Your task to perform on an android device: Go to internet settings Image 0: 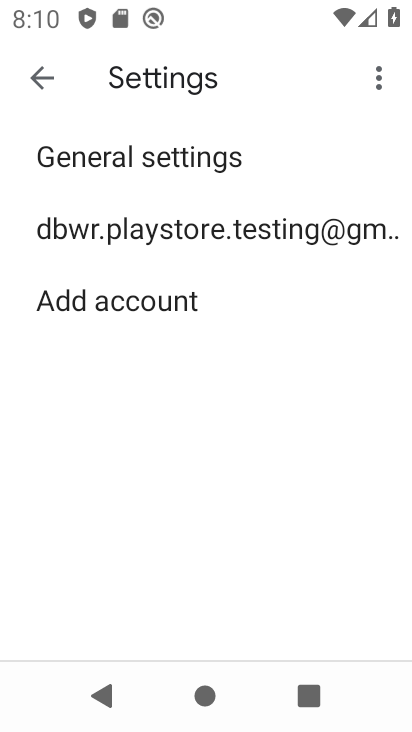
Step 0: press home button
Your task to perform on an android device: Go to internet settings Image 1: 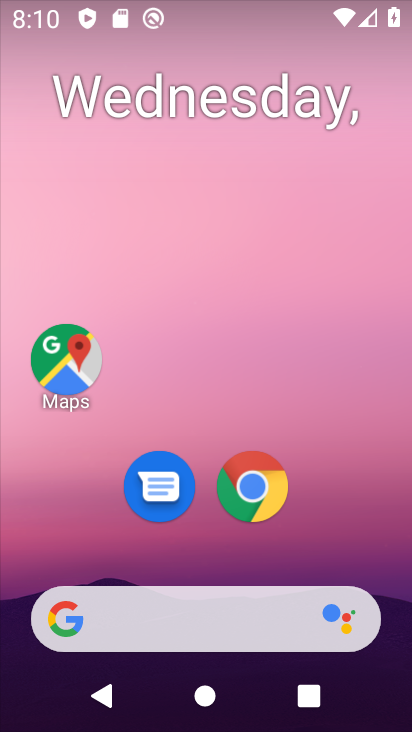
Step 1: drag from (397, 622) to (325, 143)
Your task to perform on an android device: Go to internet settings Image 2: 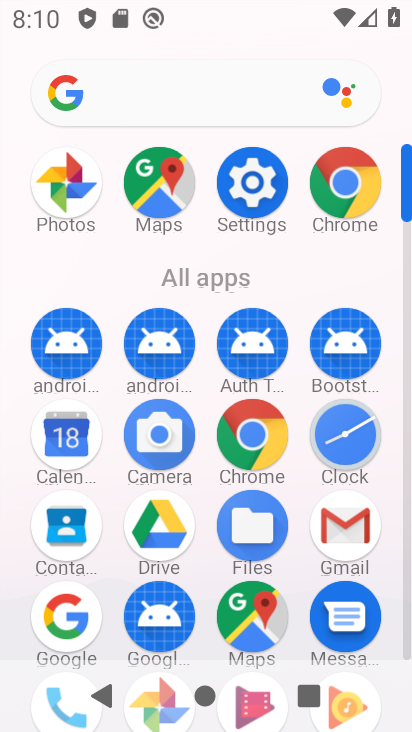
Step 2: click (408, 646)
Your task to perform on an android device: Go to internet settings Image 3: 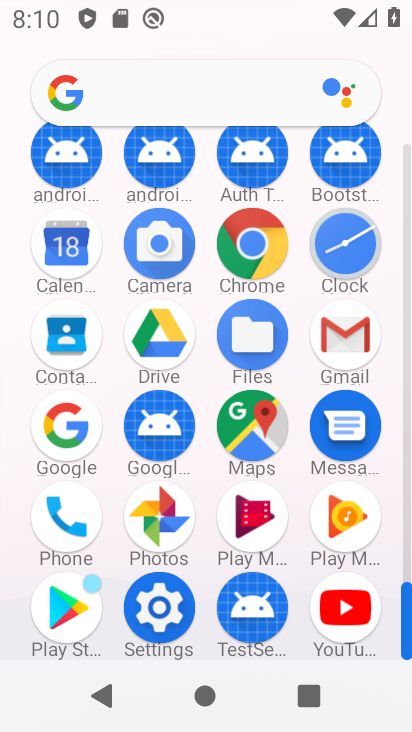
Step 3: click (160, 609)
Your task to perform on an android device: Go to internet settings Image 4: 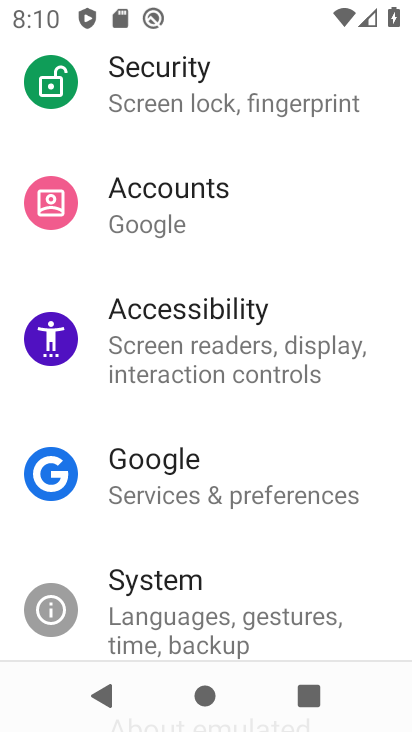
Step 4: drag from (369, 114) to (356, 517)
Your task to perform on an android device: Go to internet settings Image 5: 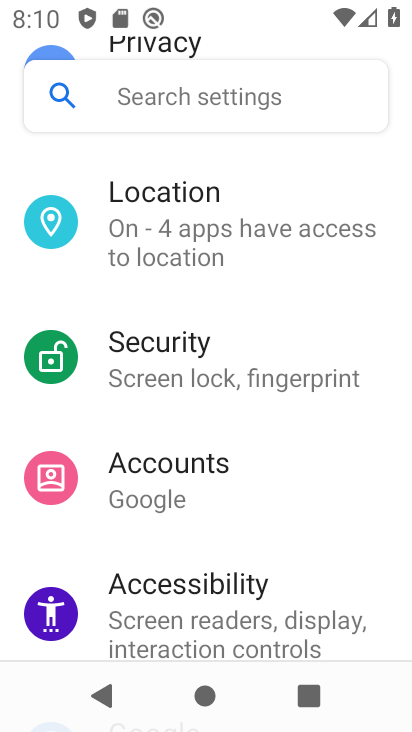
Step 5: drag from (374, 180) to (370, 501)
Your task to perform on an android device: Go to internet settings Image 6: 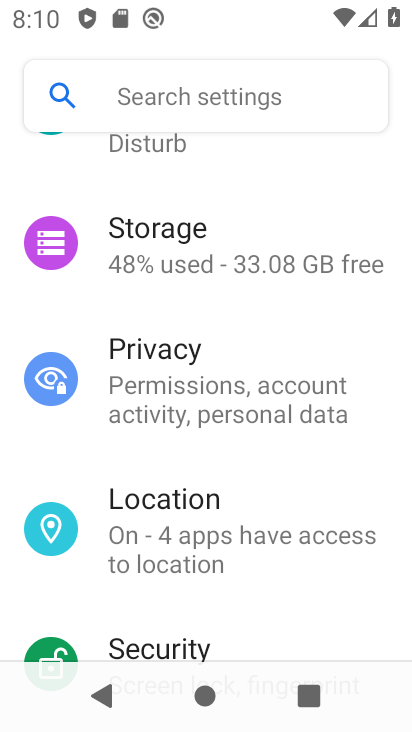
Step 6: drag from (383, 212) to (372, 607)
Your task to perform on an android device: Go to internet settings Image 7: 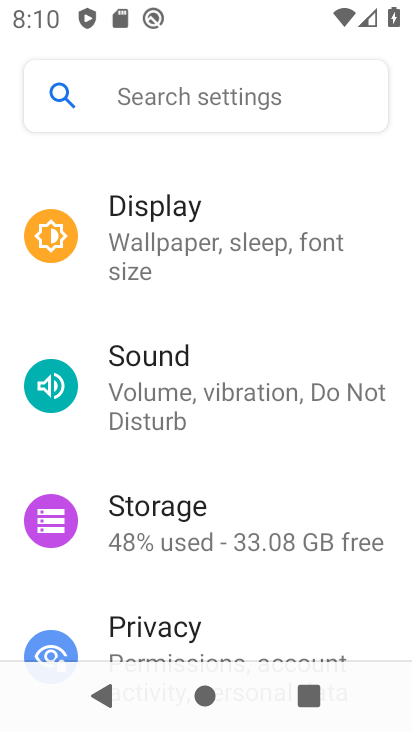
Step 7: drag from (382, 179) to (369, 578)
Your task to perform on an android device: Go to internet settings Image 8: 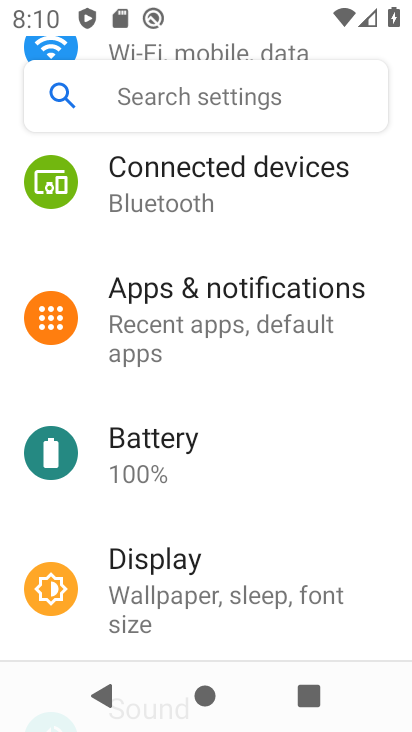
Step 8: drag from (371, 216) to (360, 585)
Your task to perform on an android device: Go to internet settings Image 9: 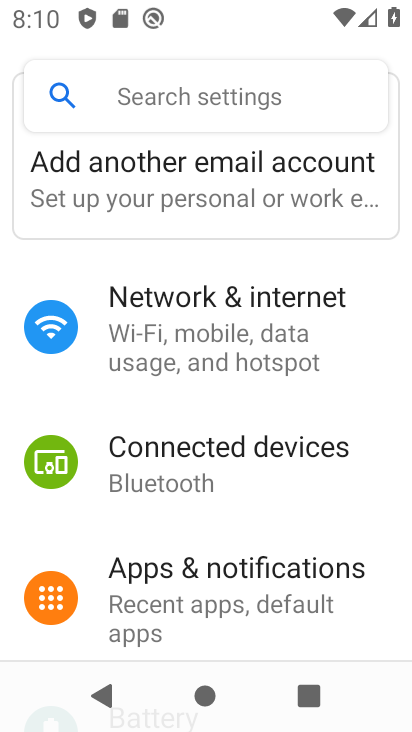
Step 9: click (153, 305)
Your task to perform on an android device: Go to internet settings Image 10: 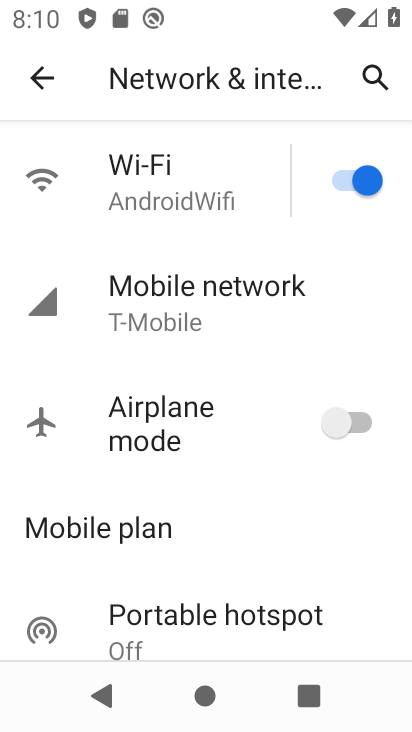
Step 10: click (121, 289)
Your task to perform on an android device: Go to internet settings Image 11: 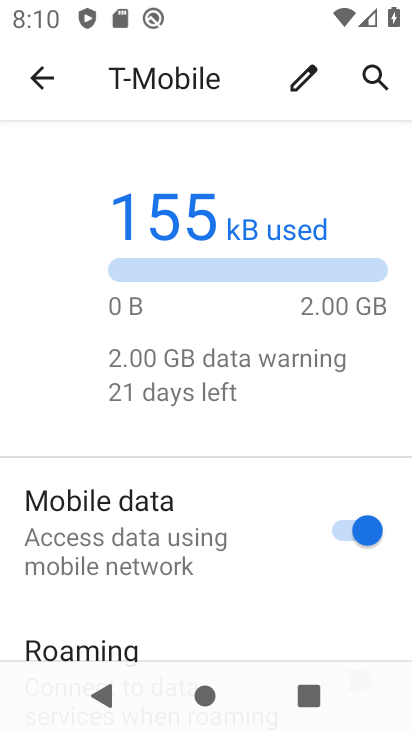
Step 11: task complete